Your task to perform on an android device: Go to Maps Image 0: 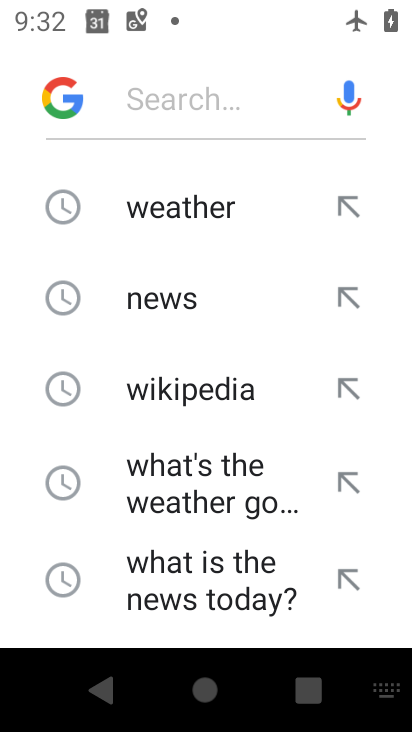
Step 0: press home button
Your task to perform on an android device: Go to Maps Image 1: 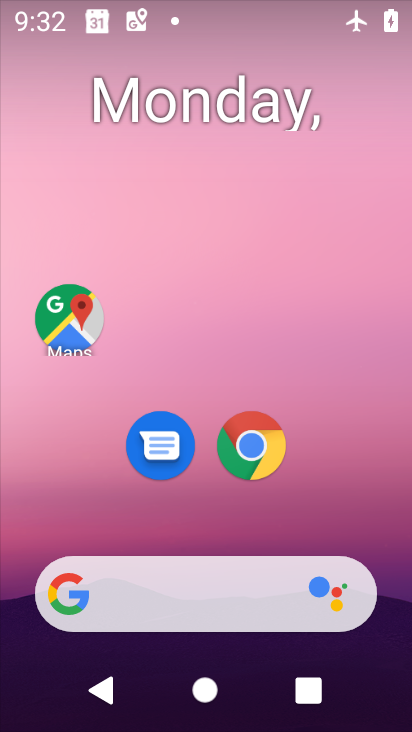
Step 1: click (76, 318)
Your task to perform on an android device: Go to Maps Image 2: 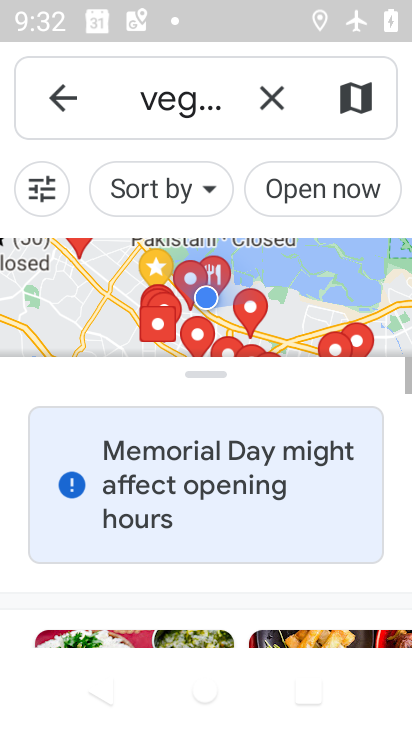
Step 2: click (290, 101)
Your task to perform on an android device: Go to Maps Image 3: 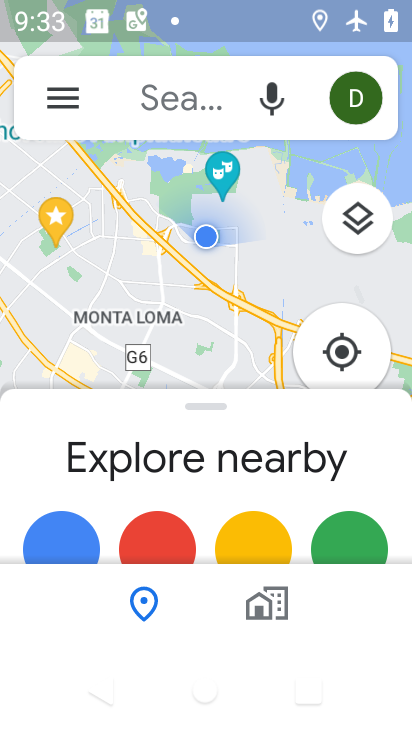
Step 3: click (113, 55)
Your task to perform on an android device: Go to Maps Image 4: 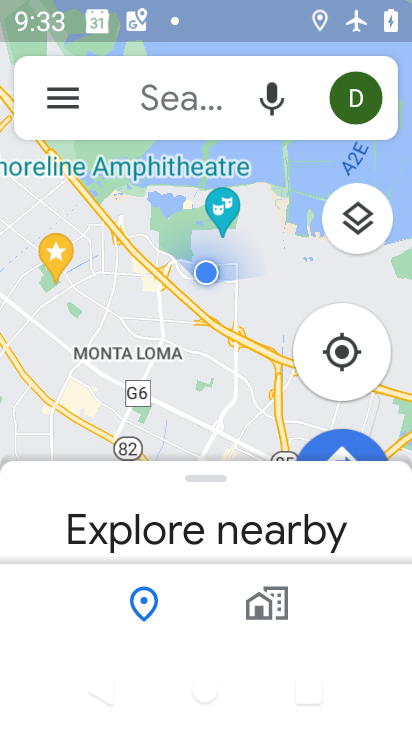
Step 4: task complete